Your task to perform on an android device: see creations saved in the google photos Image 0: 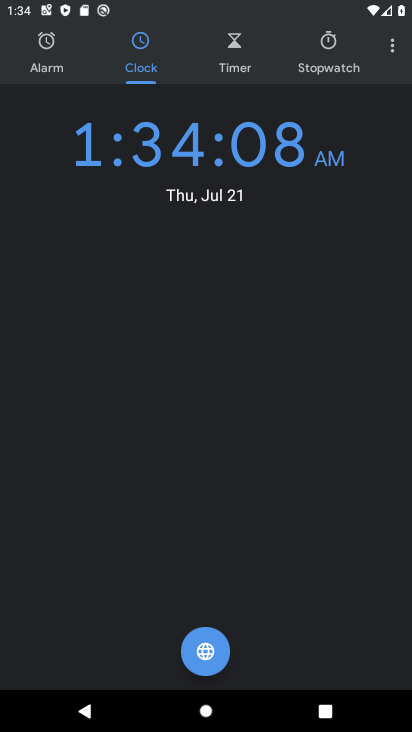
Step 0: press home button
Your task to perform on an android device: see creations saved in the google photos Image 1: 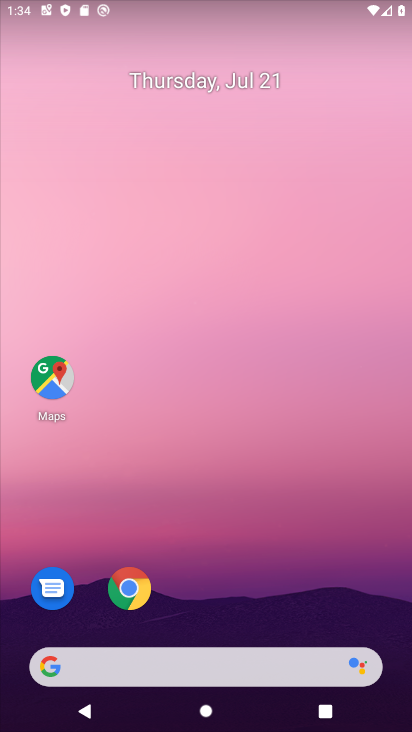
Step 1: drag from (212, 630) to (235, 8)
Your task to perform on an android device: see creations saved in the google photos Image 2: 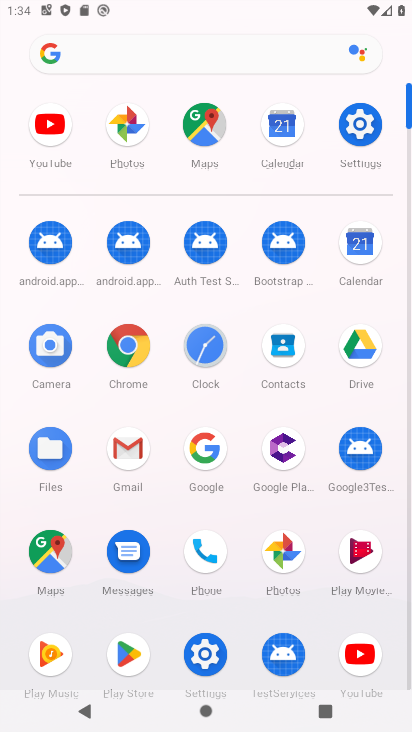
Step 2: click (148, 139)
Your task to perform on an android device: see creations saved in the google photos Image 3: 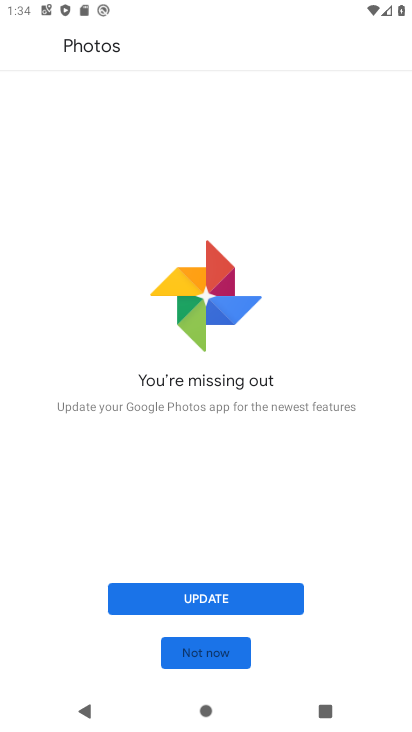
Step 3: click (225, 604)
Your task to perform on an android device: see creations saved in the google photos Image 4: 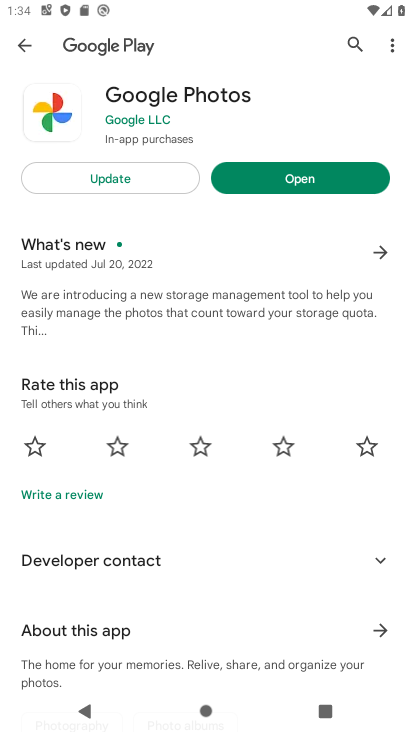
Step 4: click (178, 177)
Your task to perform on an android device: see creations saved in the google photos Image 5: 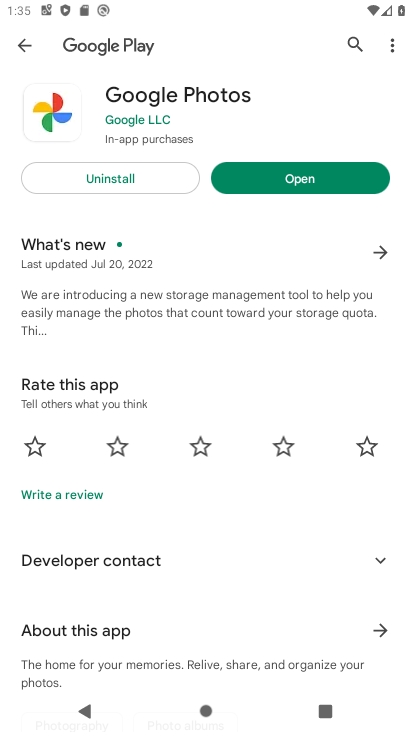
Step 5: click (286, 176)
Your task to perform on an android device: see creations saved in the google photos Image 6: 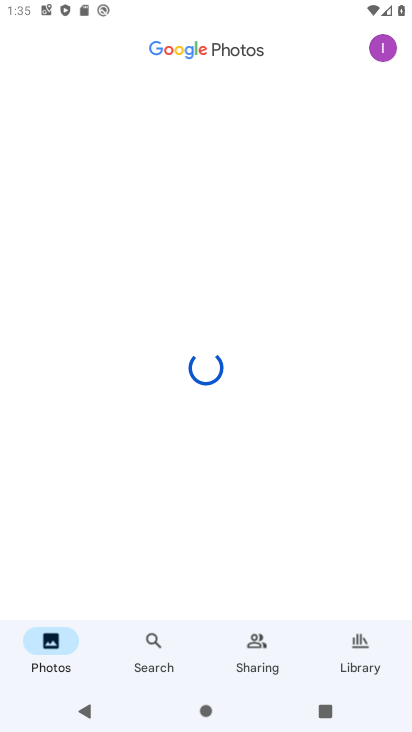
Step 6: click (149, 636)
Your task to perform on an android device: see creations saved in the google photos Image 7: 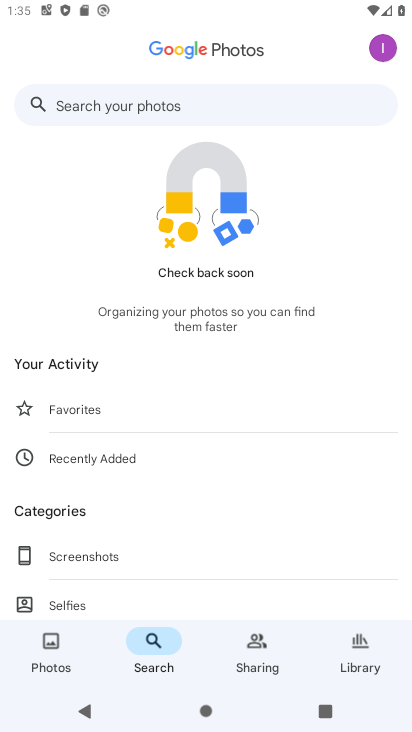
Step 7: click (165, 97)
Your task to perform on an android device: see creations saved in the google photos Image 8: 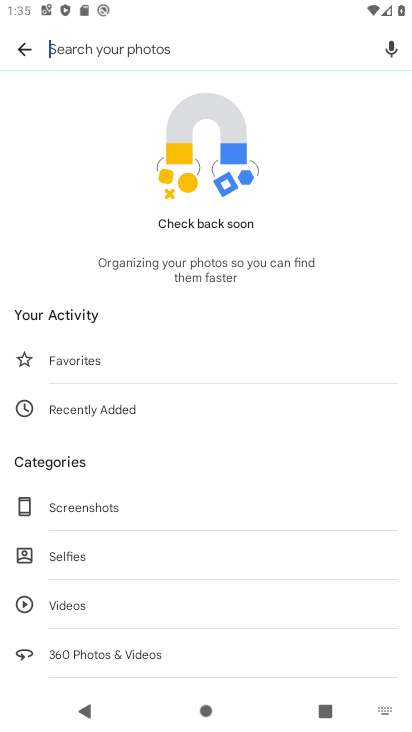
Step 8: drag from (226, 512) to (199, 220)
Your task to perform on an android device: see creations saved in the google photos Image 9: 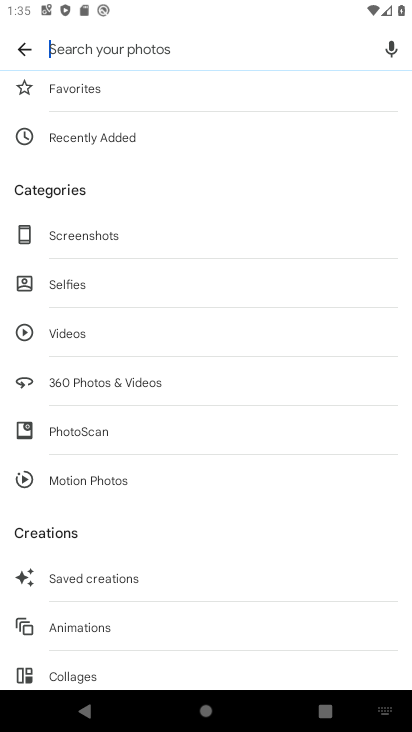
Step 9: click (97, 581)
Your task to perform on an android device: see creations saved in the google photos Image 10: 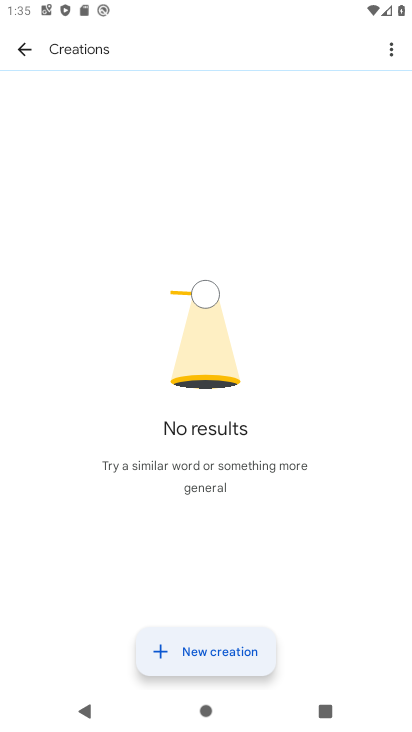
Step 10: task complete